Your task to perform on an android device: Open my contact list Image 0: 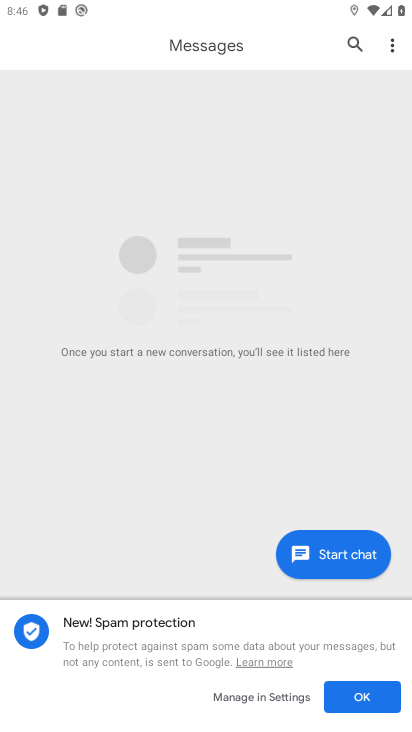
Step 0: press home button
Your task to perform on an android device: Open my contact list Image 1: 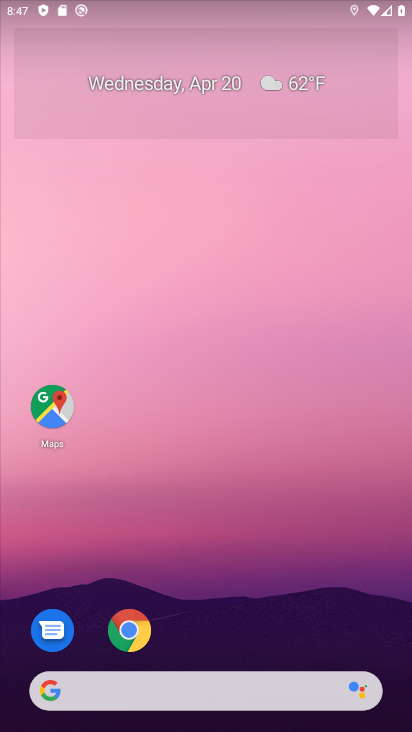
Step 1: drag from (203, 622) to (252, 0)
Your task to perform on an android device: Open my contact list Image 2: 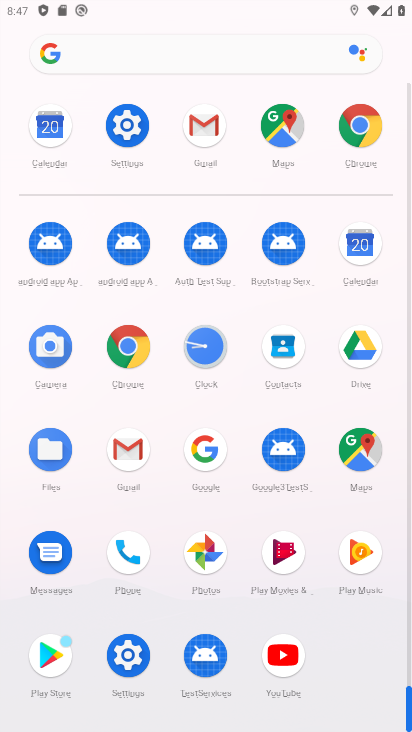
Step 2: click (286, 351)
Your task to perform on an android device: Open my contact list Image 3: 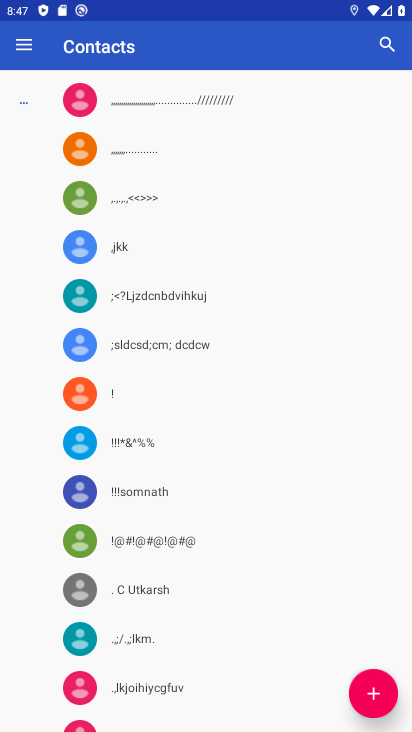
Step 3: task complete